Your task to perform on an android device: open chrome and create a bookmark for the current page Image 0: 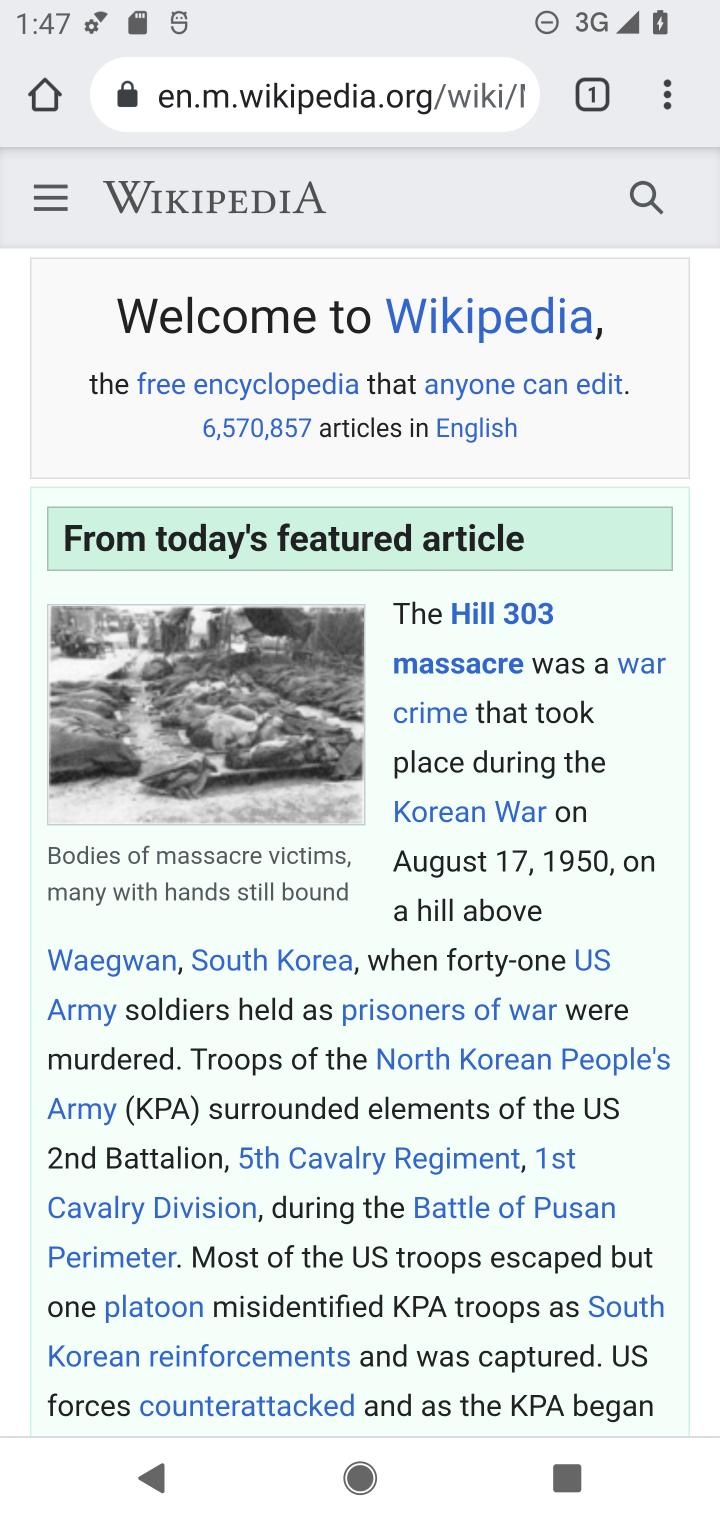
Step 0: press home button
Your task to perform on an android device: open chrome and create a bookmark for the current page Image 1: 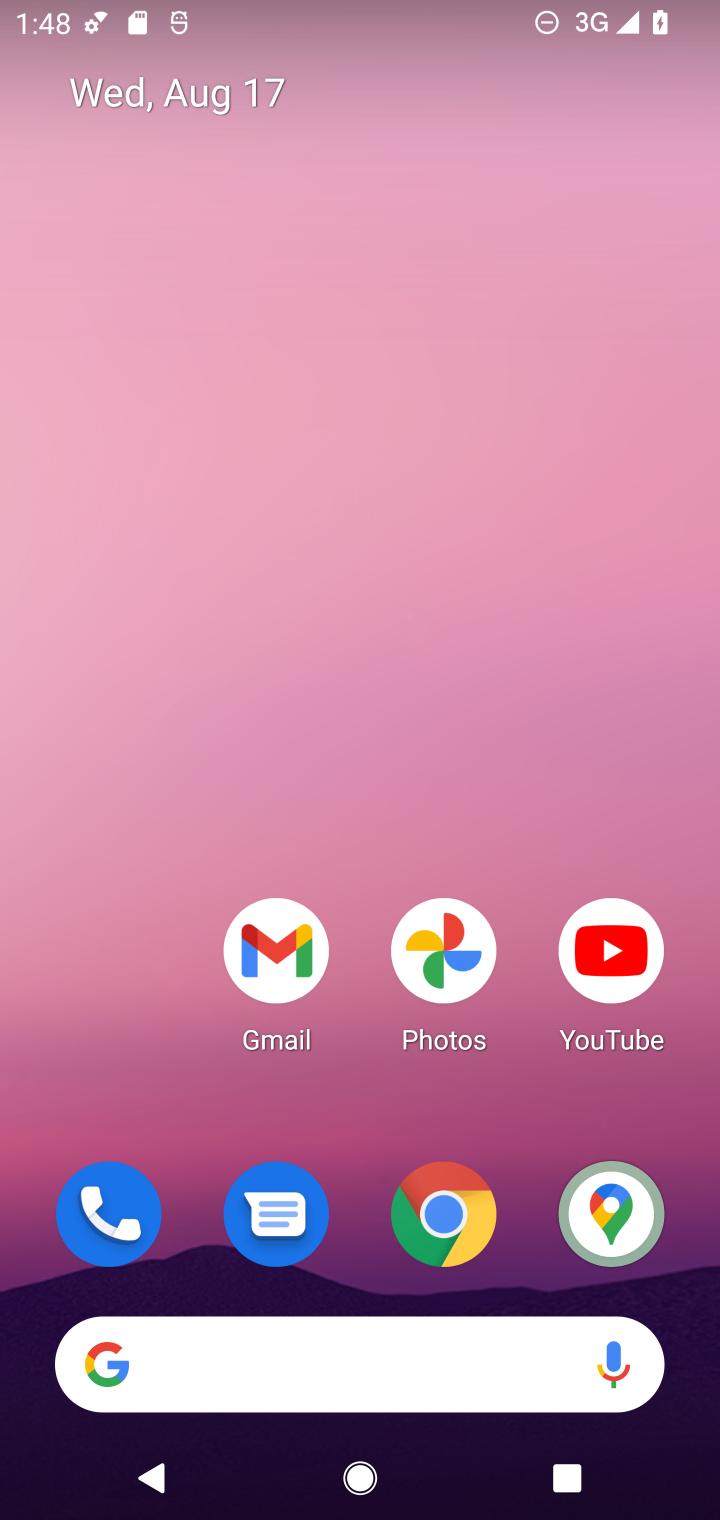
Step 1: click (439, 1232)
Your task to perform on an android device: open chrome and create a bookmark for the current page Image 2: 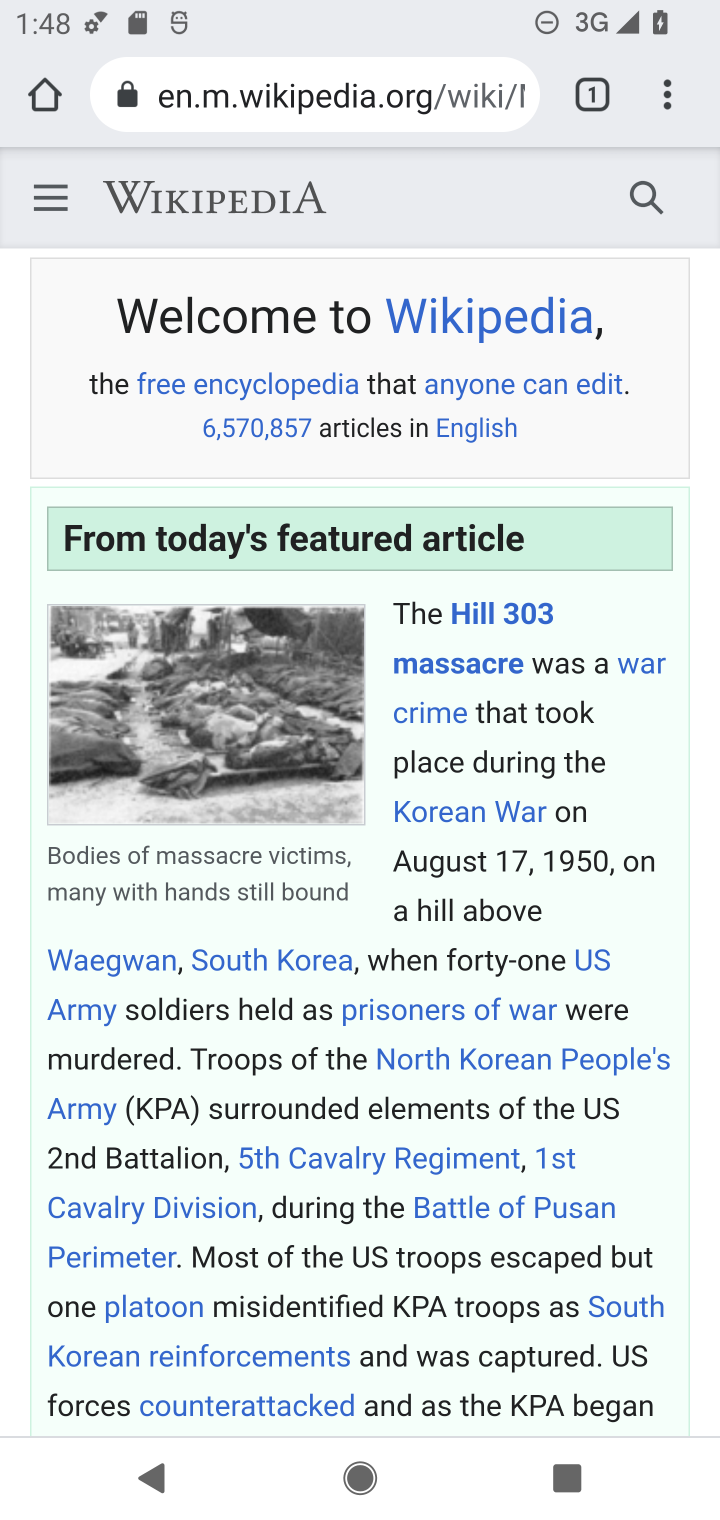
Step 2: click (671, 91)
Your task to perform on an android device: open chrome and create a bookmark for the current page Image 3: 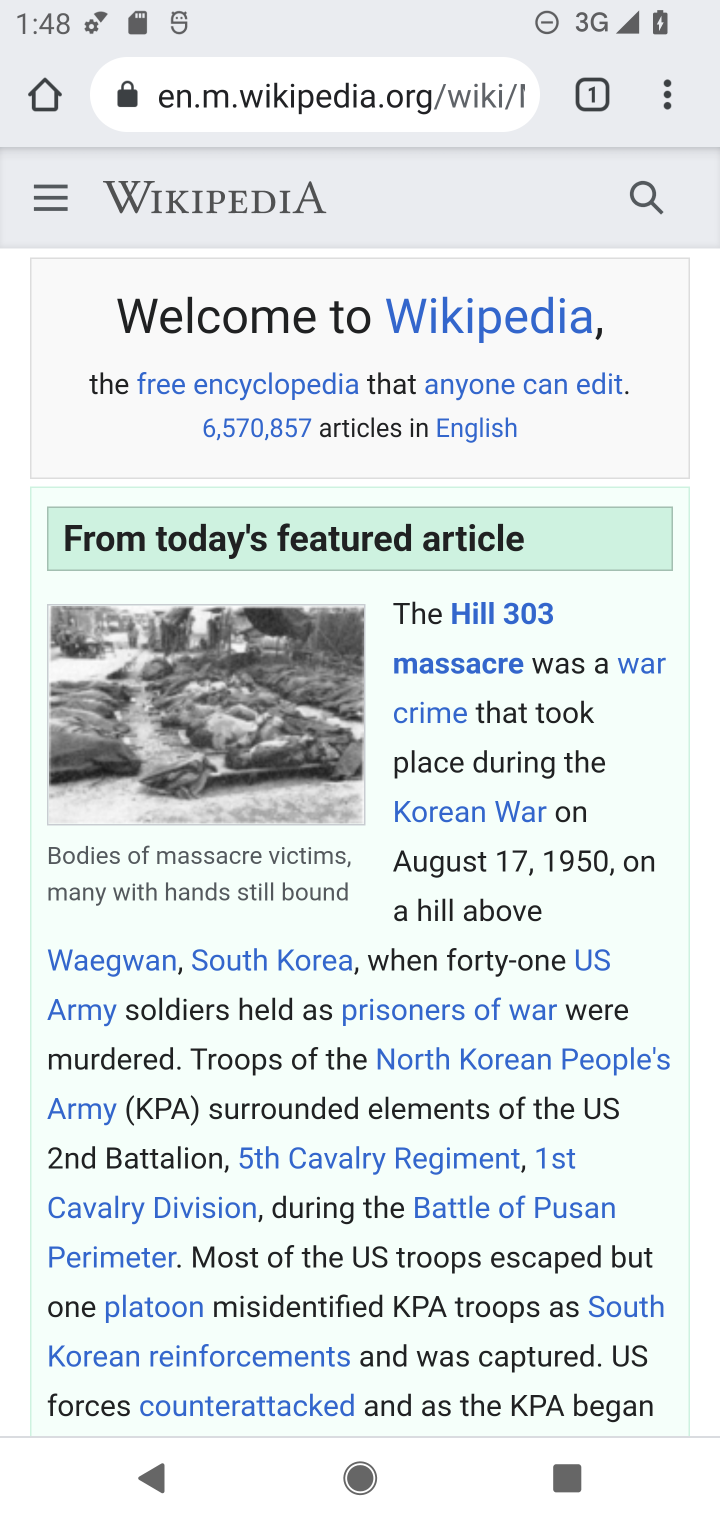
Step 3: click (654, 95)
Your task to perform on an android device: open chrome and create a bookmark for the current page Image 4: 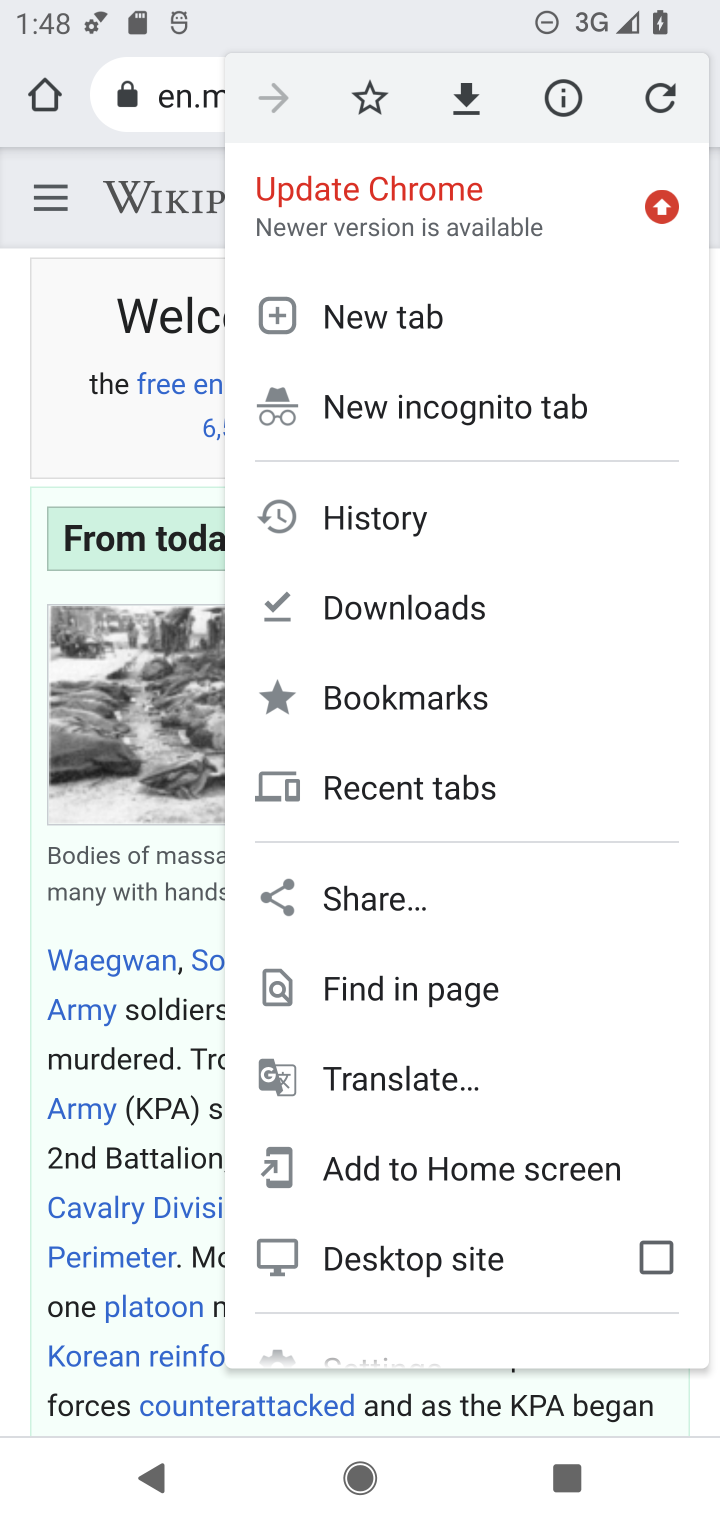
Step 4: click (375, 99)
Your task to perform on an android device: open chrome and create a bookmark for the current page Image 5: 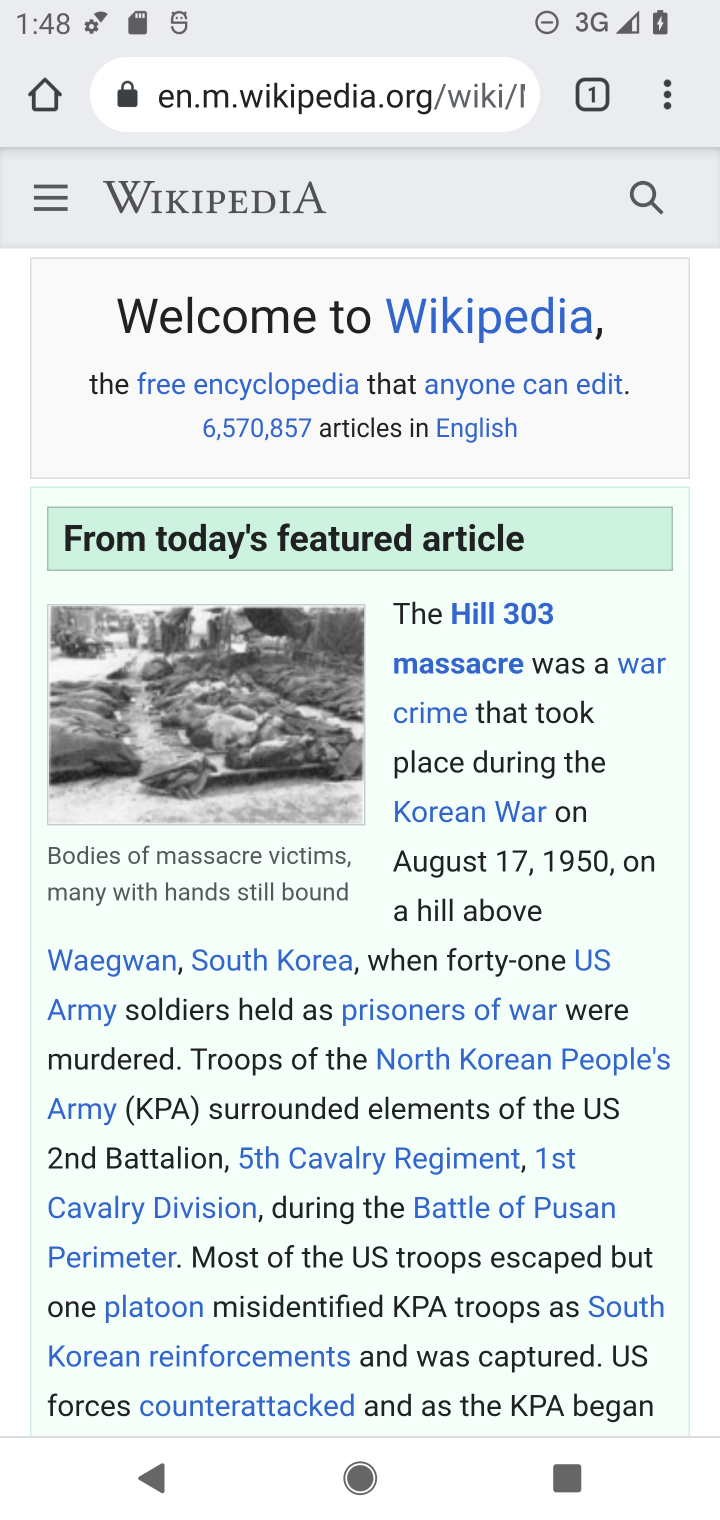
Step 5: task complete